Your task to perform on an android device: turn vacation reply on in the gmail app Image 0: 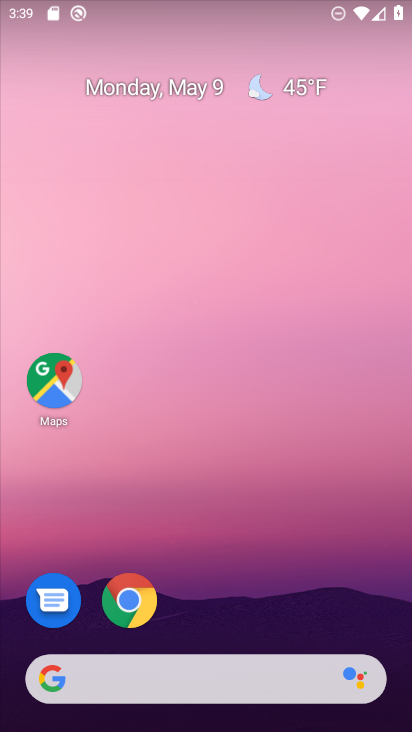
Step 0: drag from (259, 567) to (249, 28)
Your task to perform on an android device: turn vacation reply on in the gmail app Image 1: 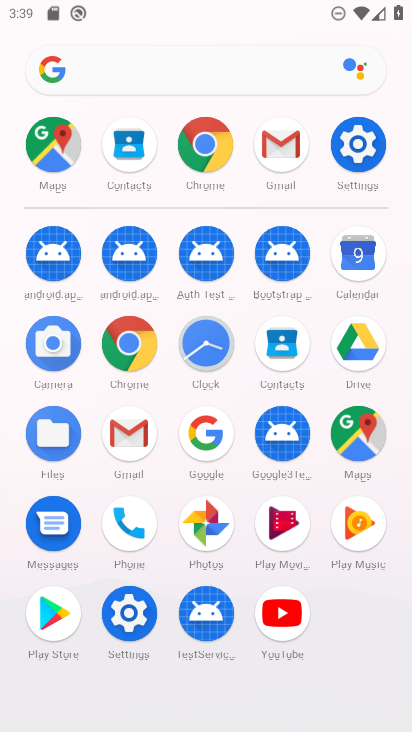
Step 1: click (128, 430)
Your task to perform on an android device: turn vacation reply on in the gmail app Image 2: 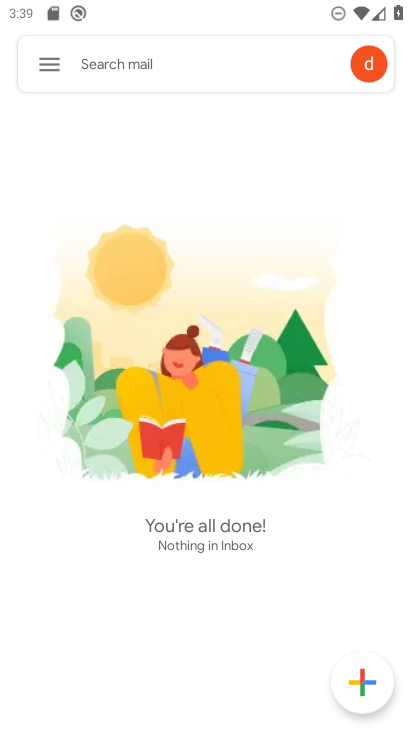
Step 2: click (52, 64)
Your task to perform on an android device: turn vacation reply on in the gmail app Image 3: 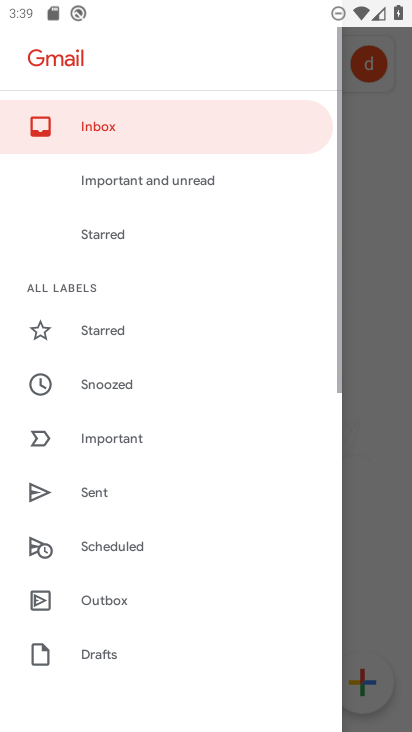
Step 3: drag from (123, 564) to (150, 133)
Your task to perform on an android device: turn vacation reply on in the gmail app Image 4: 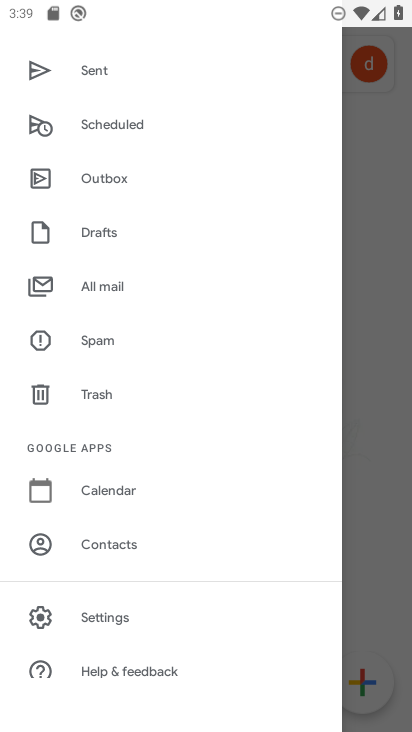
Step 4: drag from (156, 568) to (171, 182)
Your task to perform on an android device: turn vacation reply on in the gmail app Image 5: 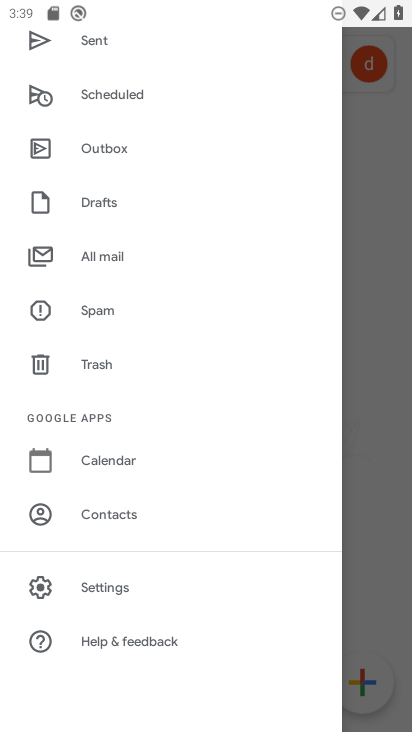
Step 5: click (105, 583)
Your task to perform on an android device: turn vacation reply on in the gmail app Image 6: 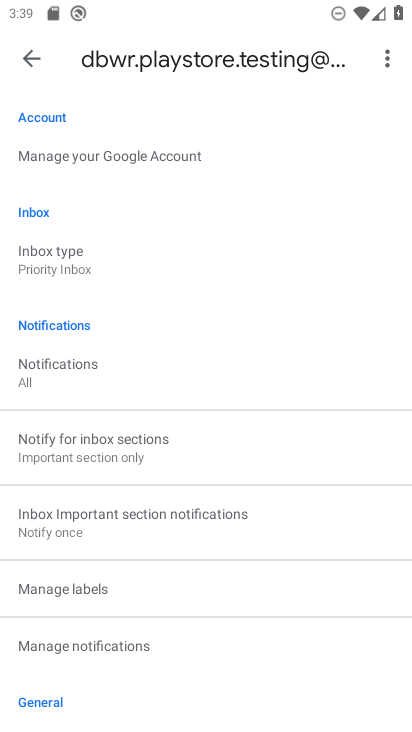
Step 6: drag from (225, 671) to (260, 172)
Your task to perform on an android device: turn vacation reply on in the gmail app Image 7: 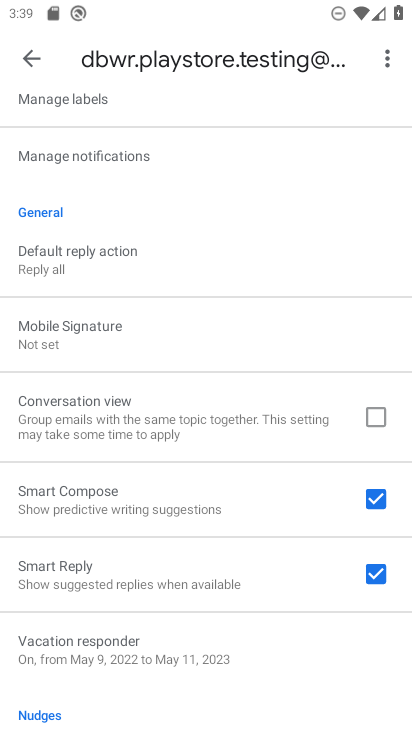
Step 7: drag from (221, 592) to (276, 165)
Your task to perform on an android device: turn vacation reply on in the gmail app Image 8: 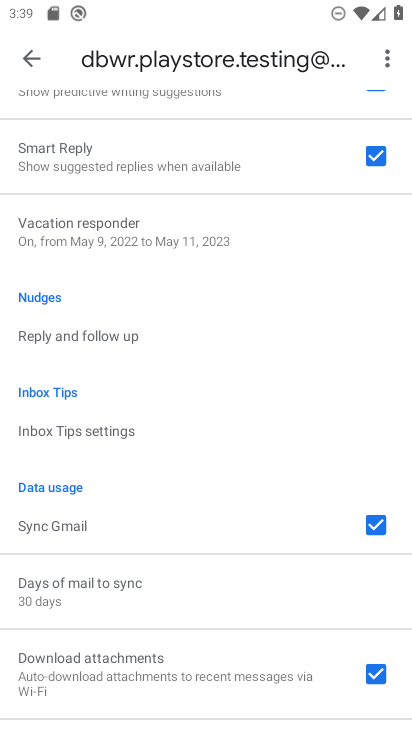
Step 8: drag from (183, 580) to (222, 158)
Your task to perform on an android device: turn vacation reply on in the gmail app Image 9: 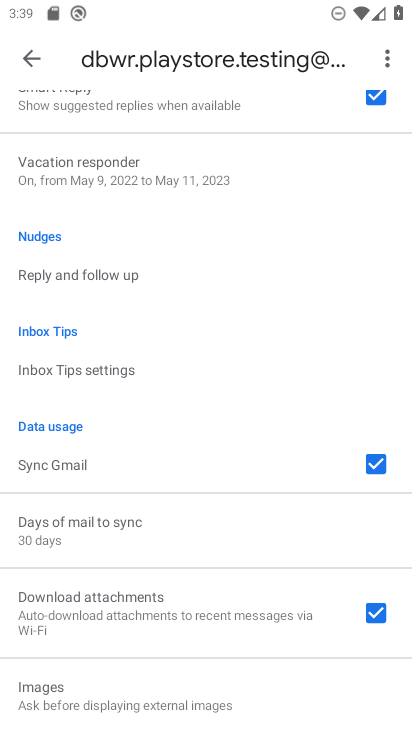
Step 9: drag from (184, 323) to (178, 572)
Your task to perform on an android device: turn vacation reply on in the gmail app Image 10: 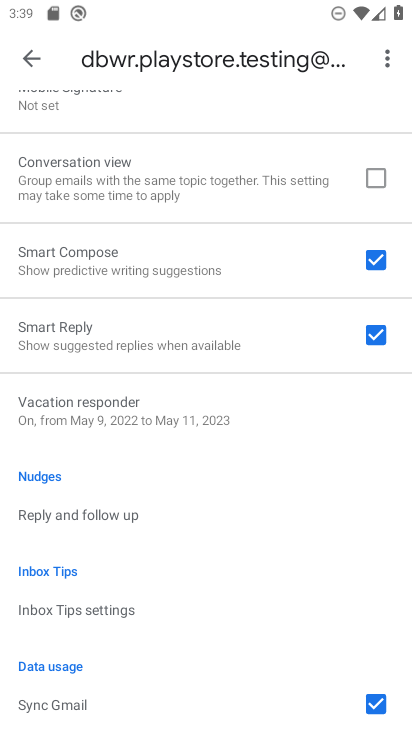
Step 10: click (149, 409)
Your task to perform on an android device: turn vacation reply on in the gmail app Image 11: 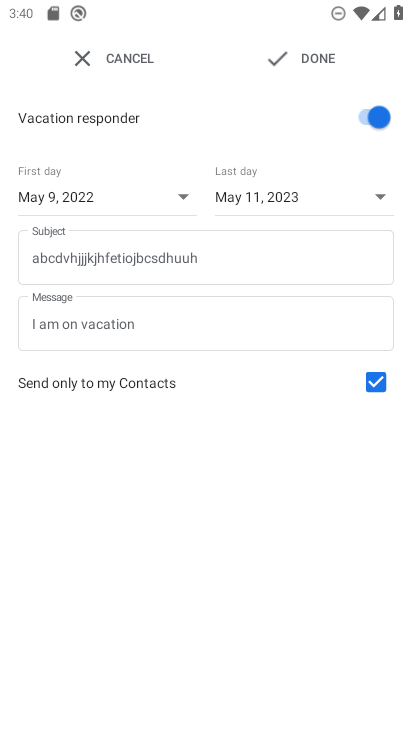
Step 11: click (325, 56)
Your task to perform on an android device: turn vacation reply on in the gmail app Image 12: 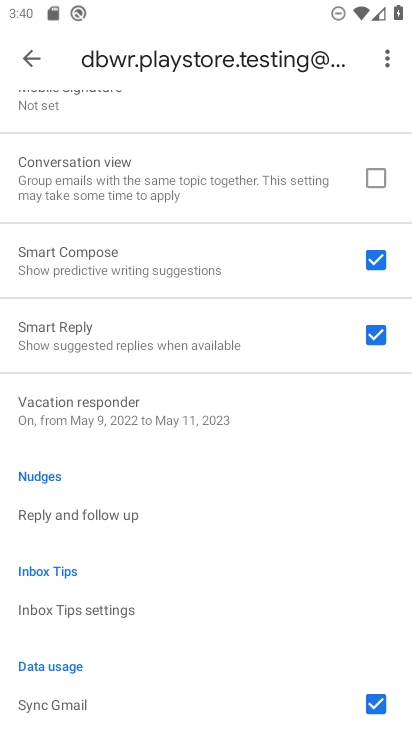
Step 12: task complete